Your task to perform on an android device: open app "DoorDash - Dasher" Image 0: 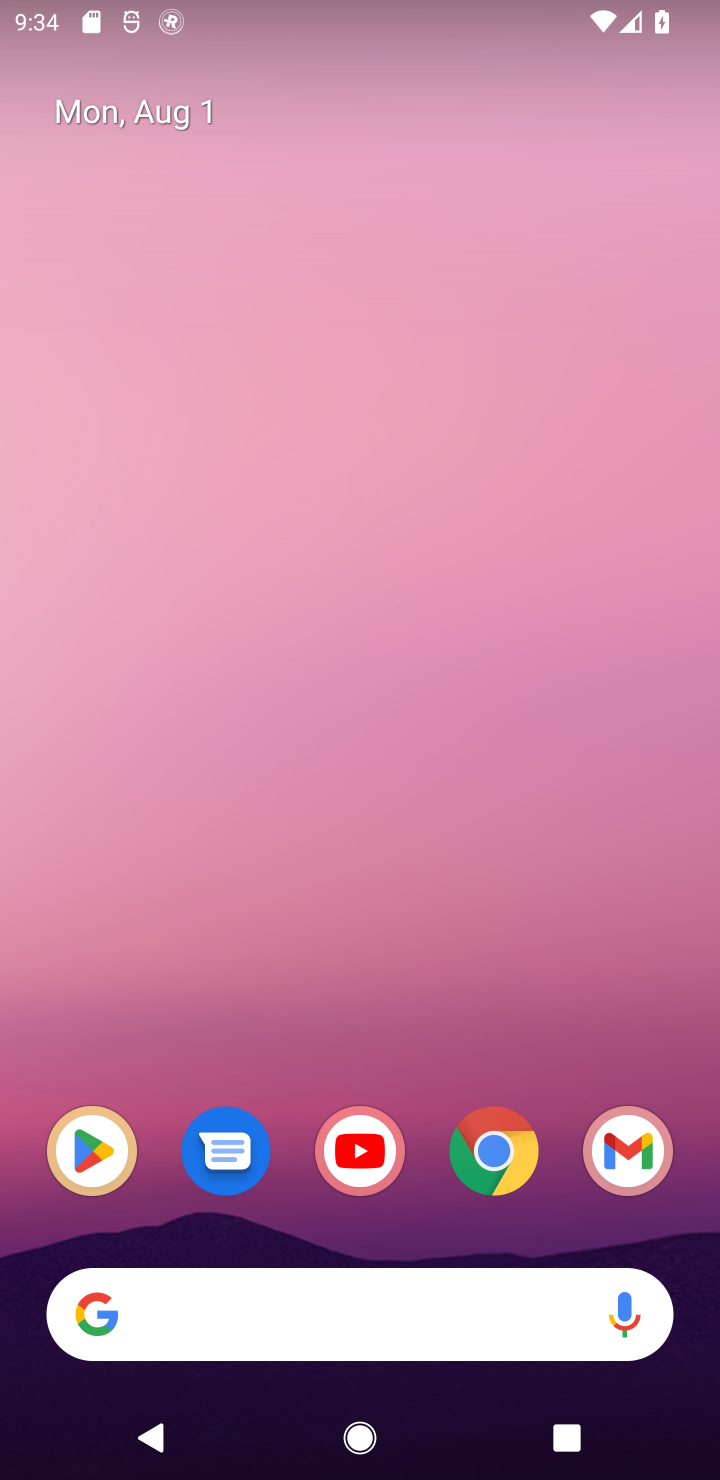
Step 0: click (111, 1138)
Your task to perform on an android device: open app "DoorDash - Dasher" Image 1: 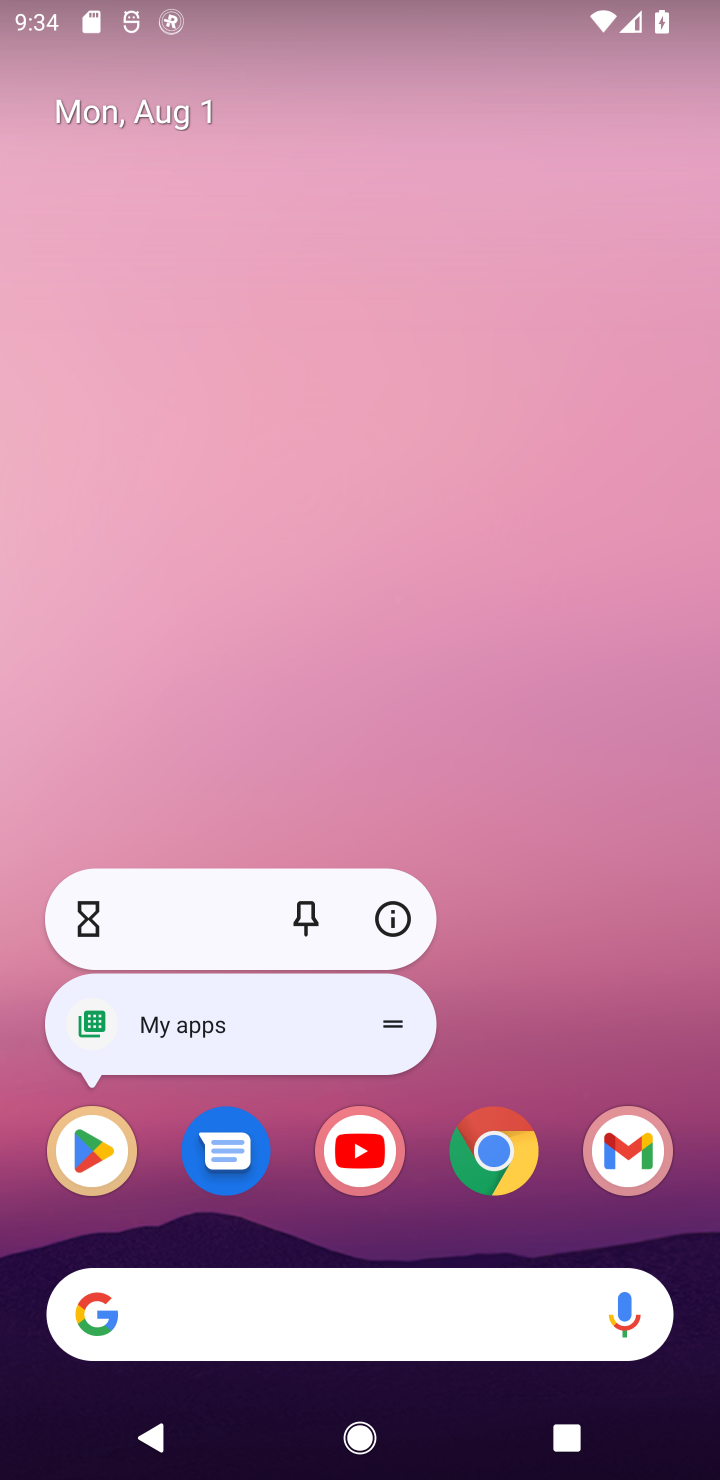
Step 1: click (113, 1136)
Your task to perform on an android device: open app "DoorDash - Dasher" Image 2: 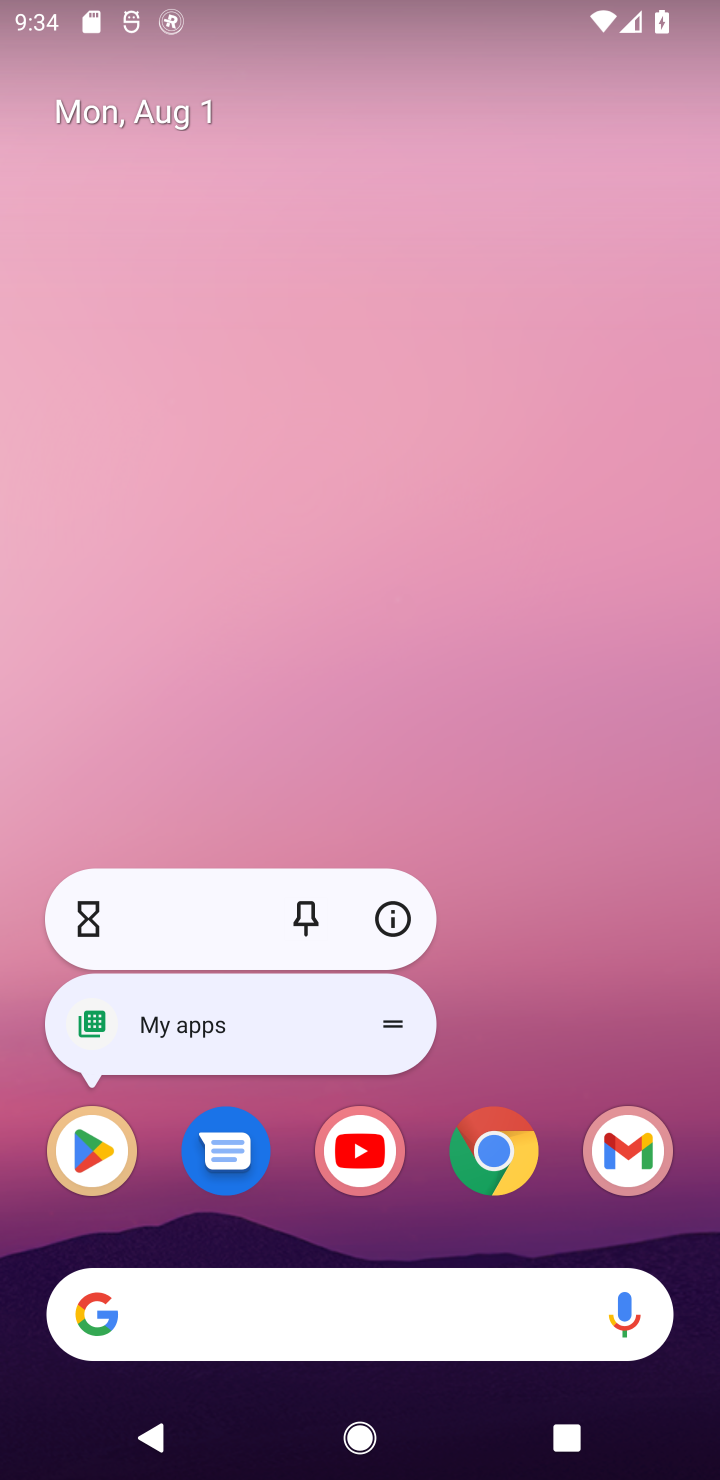
Step 2: click (113, 1136)
Your task to perform on an android device: open app "DoorDash - Dasher" Image 3: 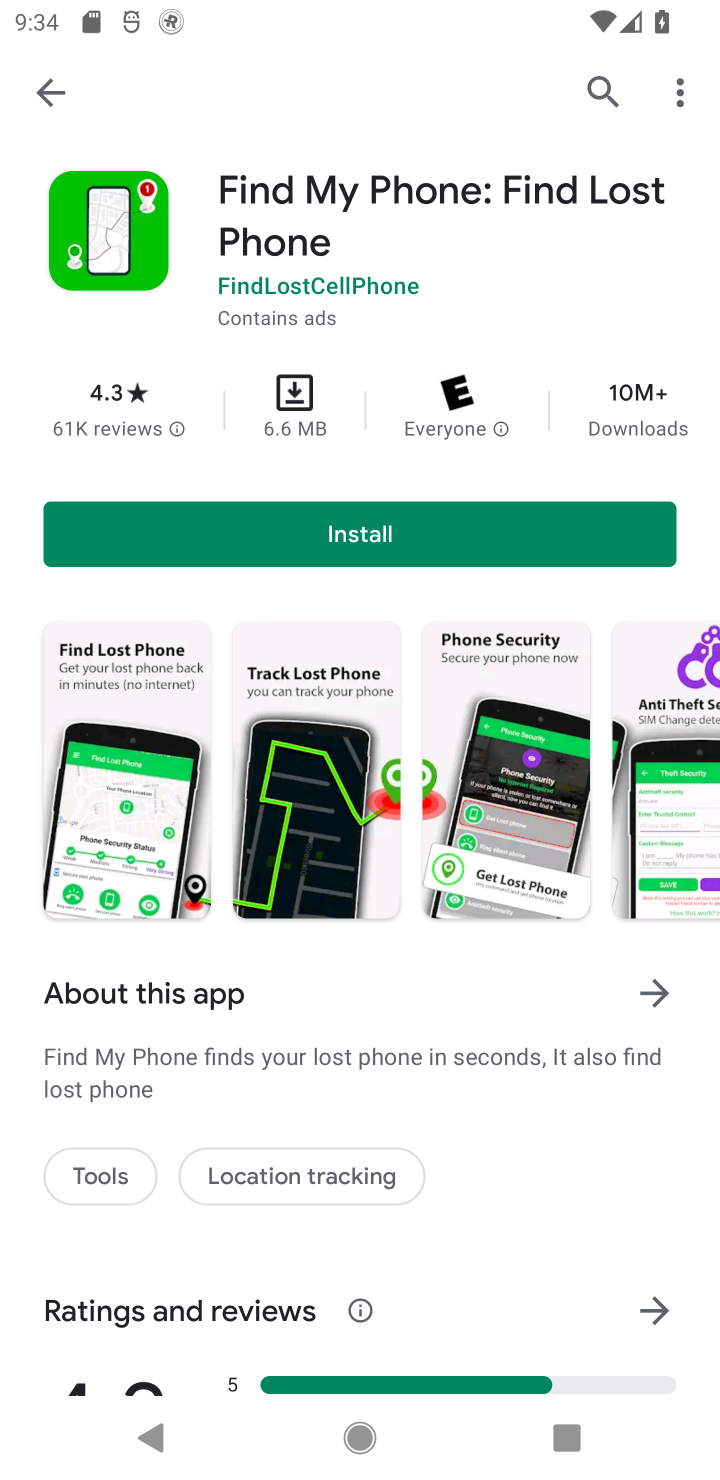
Step 3: click (616, 112)
Your task to perform on an android device: open app "DoorDash - Dasher" Image 4: 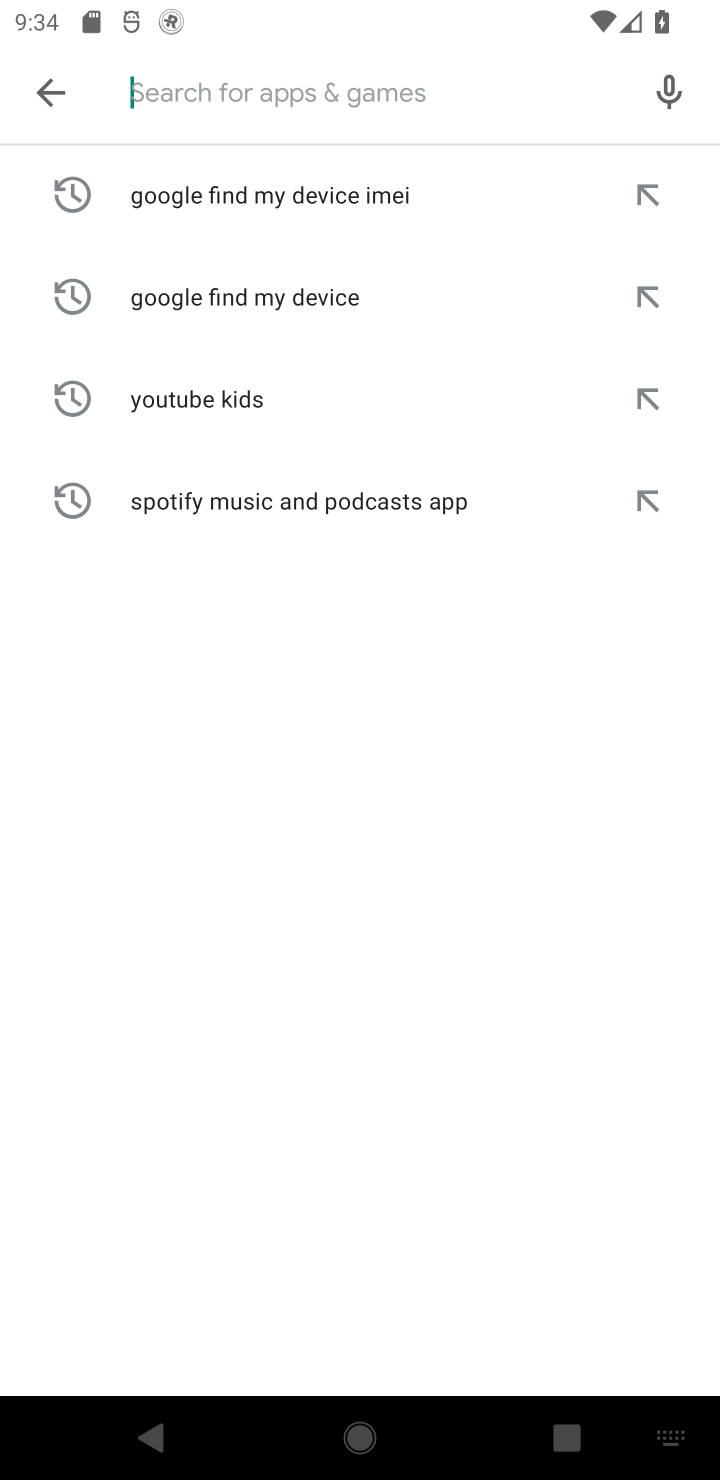
Step 4: type "DoorDash - Dasher"
Your task to perform on an android device: open app "DoorDash - Dasher" Image 5: 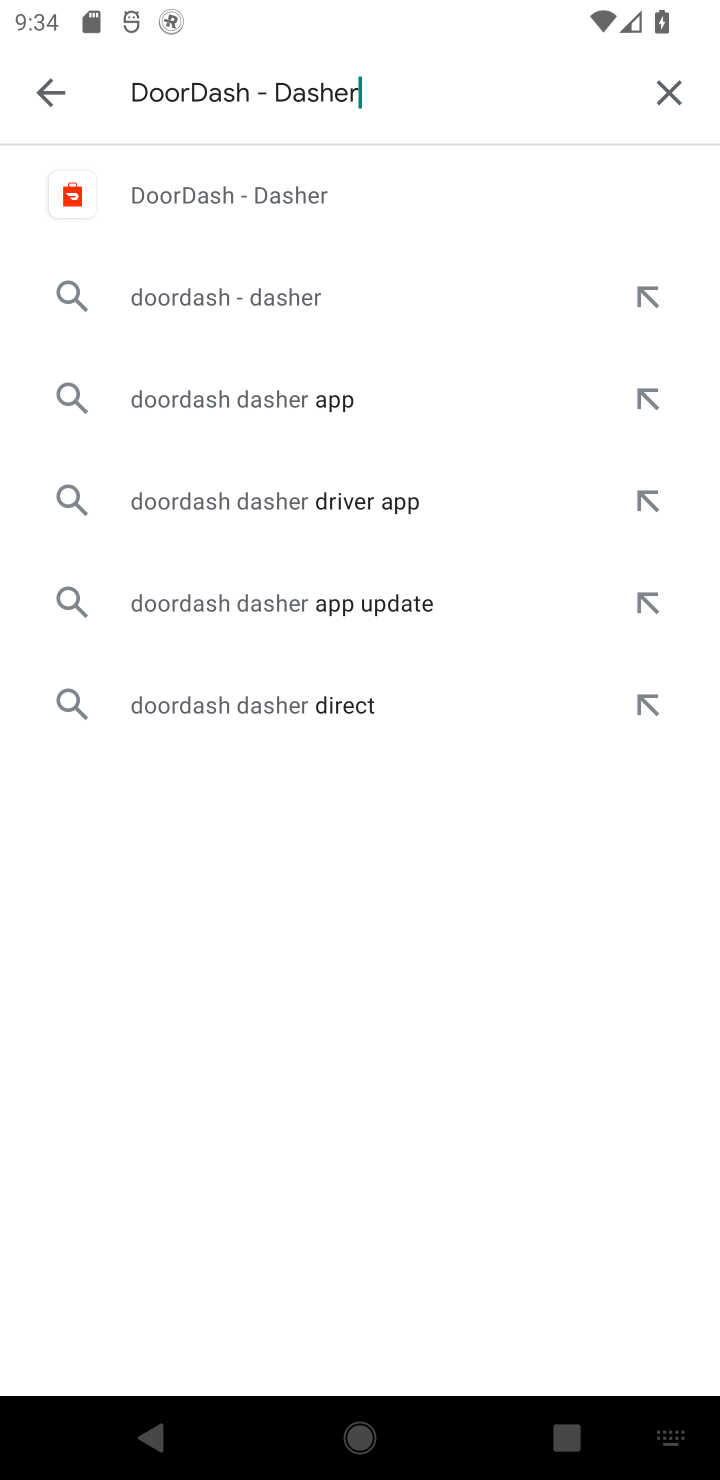
Step 5: click (179, 189)
Your task to perform on an android device: open app "DoorDash - Dasher" Image 6: 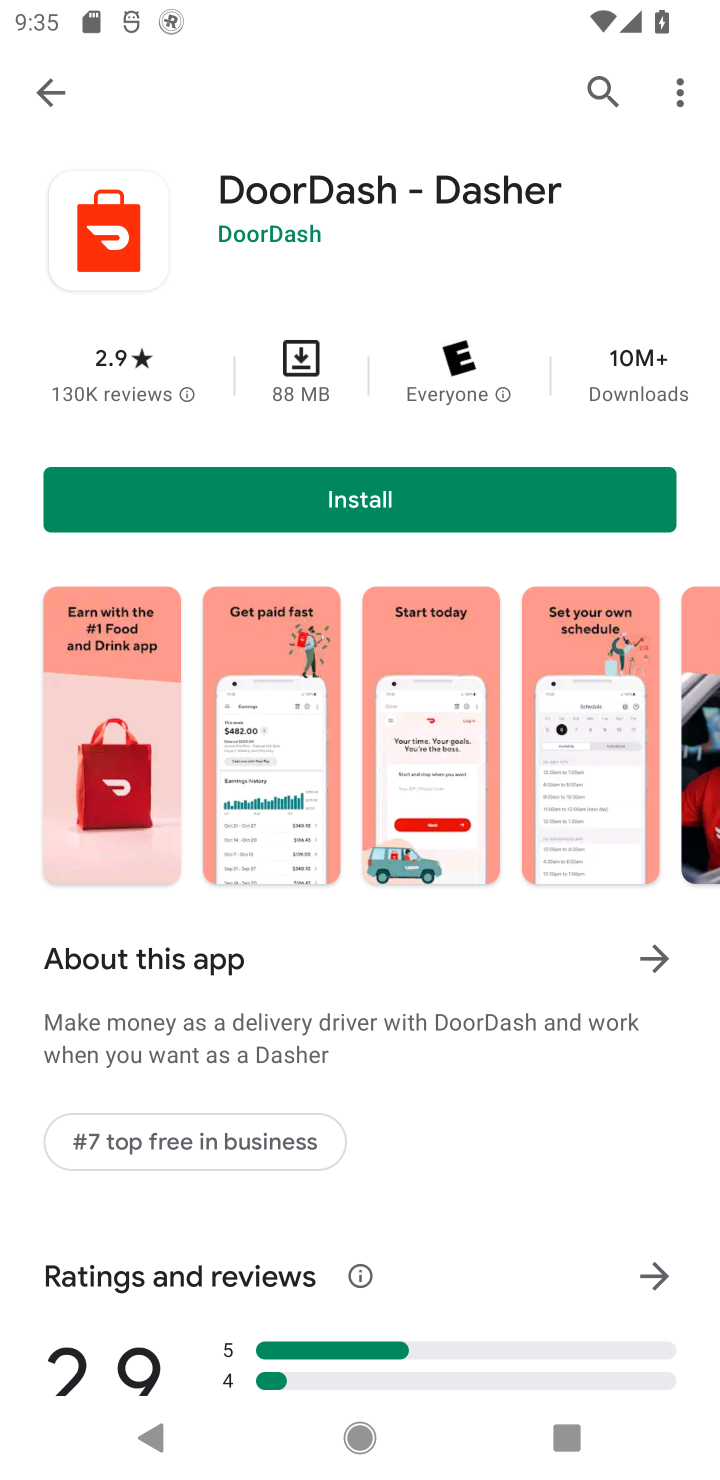
Step 6: task complete